Your task to perform on an android device: clear all cookies in the chrome app Image 0: 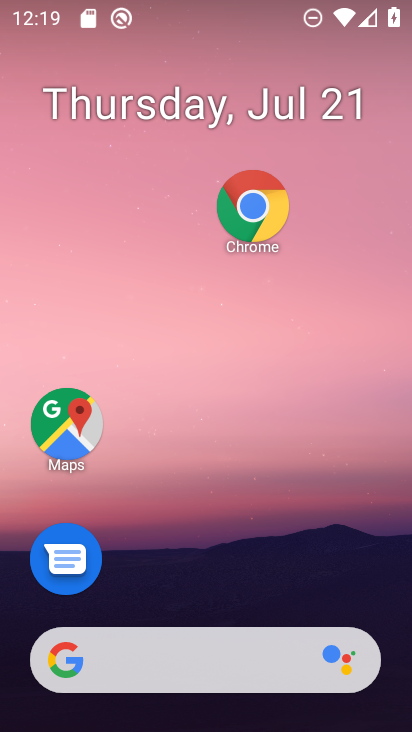
Step 0: drag from (243, 624) to (223, 134)
Your task to perform on an android device: clear all cookies in the chrome app Image 1: 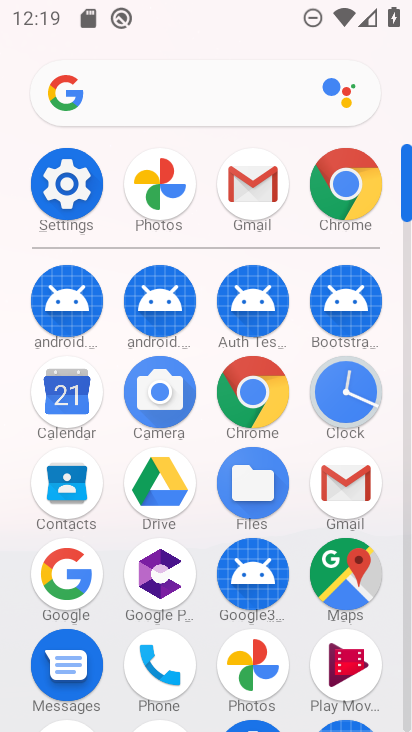
Step 1: click (272, 404)
Your task to perform on an android device: clear all cookies in the chrome app Image 2: 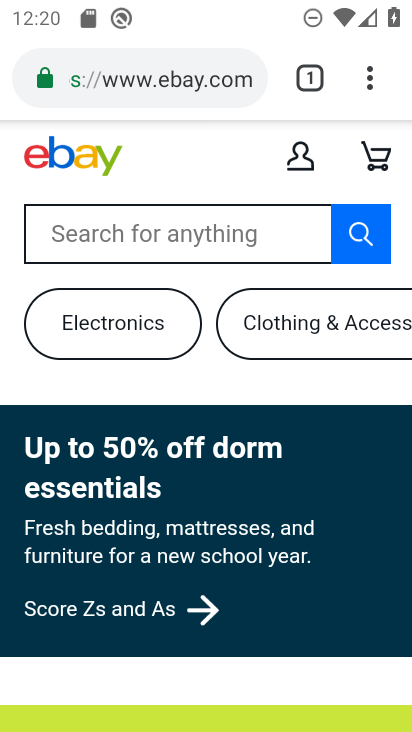
Step 2: click (373, 95)
Your task to perform on an android device: clear all cookies in the chrome app Image 3: 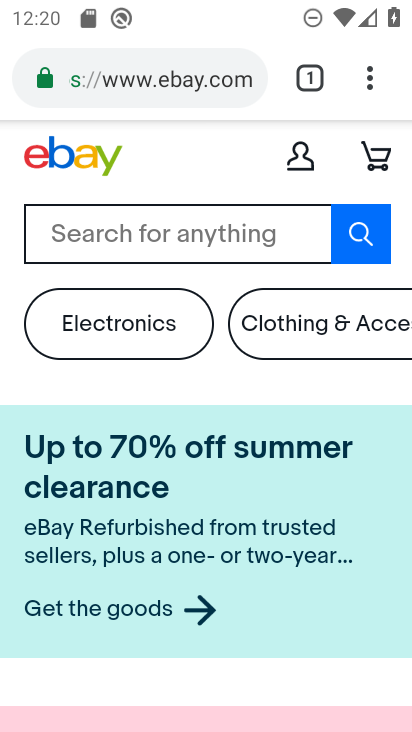
Step 3: click (371, 92)
Your task to perform on an android device: clear all cookies in the chrome app Image 4: 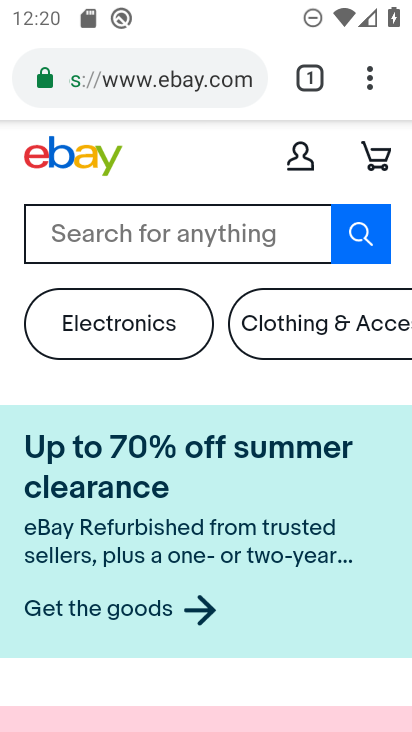
Step 4: click (371, 88)
Your task to perform on an android device: clear all cookies in the chrome app Image 5: 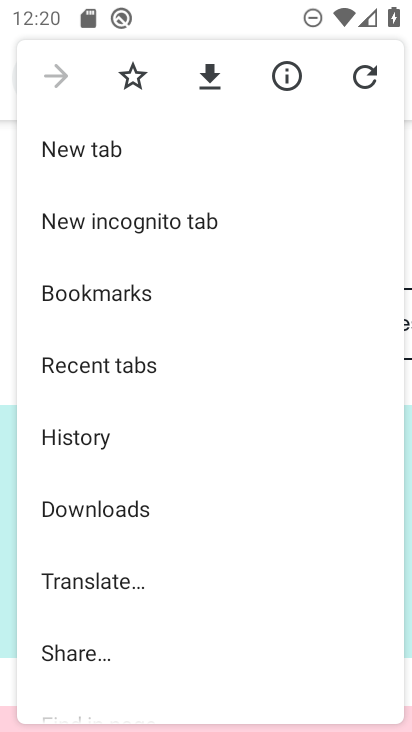
Step 5: click (107, 439)
Your task to perform on an android device: clear all cookies in the chrome app Image 6: 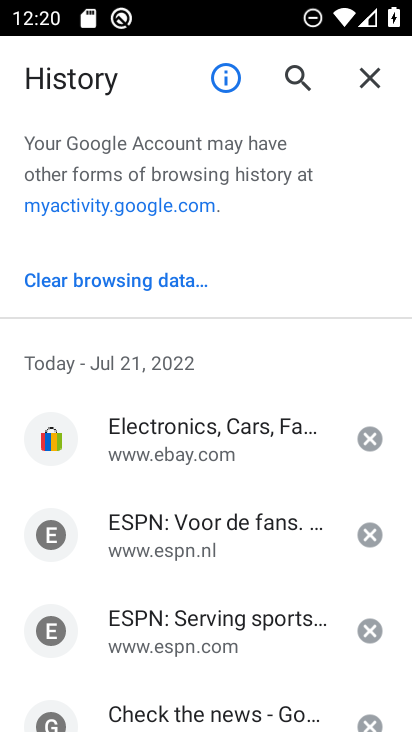
Step 6: click (104, 296)
Your task to perform on an android device: clear all cookies in the chrome app Image 7: 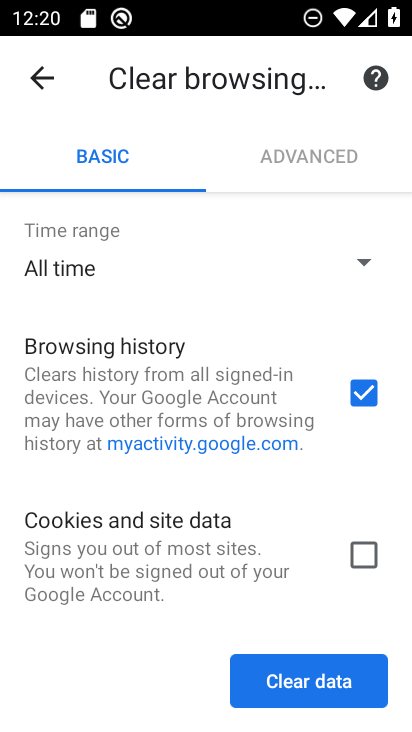
Step 7: click (356, 410)
Your task to perform on an android device: clear all cookies in the chrome app Image 8: 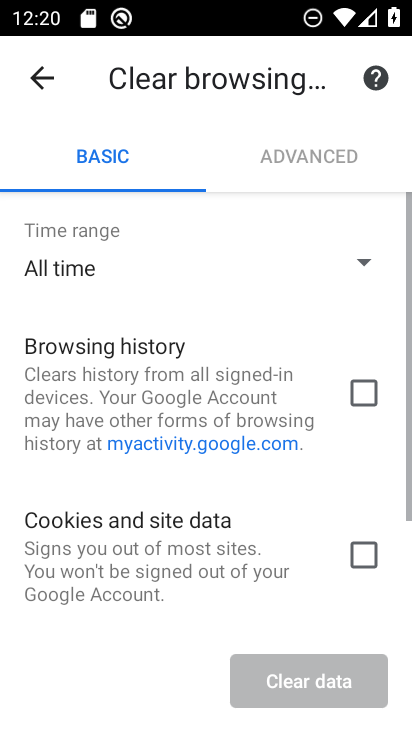
Step 8: drag from (251, 514) to (263, 282)
Your task to perform on an android device: clear all cookies in the chrome app Image 9: 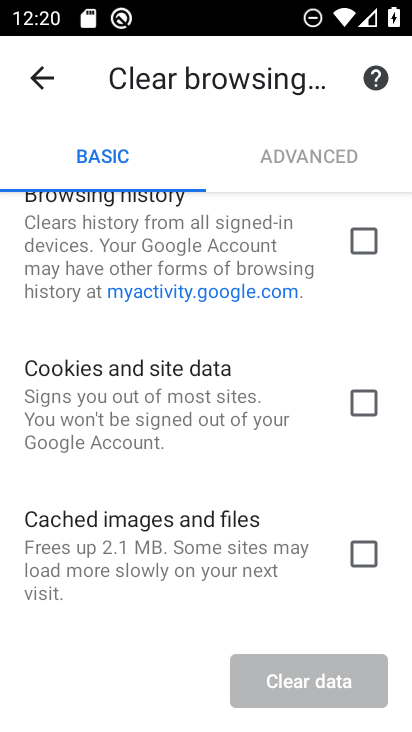
Step 9: click (350, 402)
Your task to perform on an android device: clear all cookies in the chrome app Image 10: 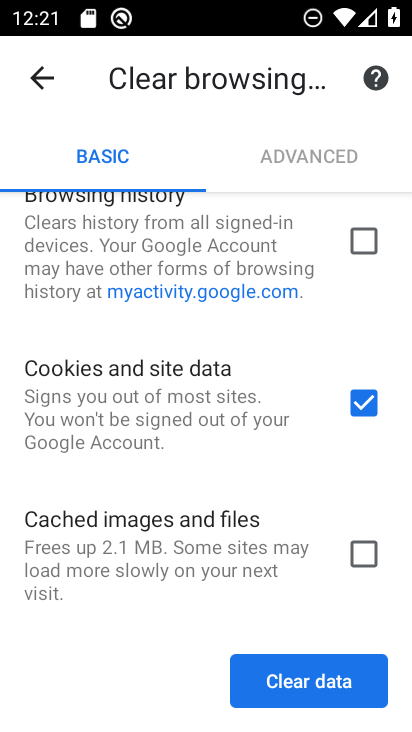
Step 10: click (309, 690)
Your task to perform on an android device: clear all cookies in the chrome app Image 11: 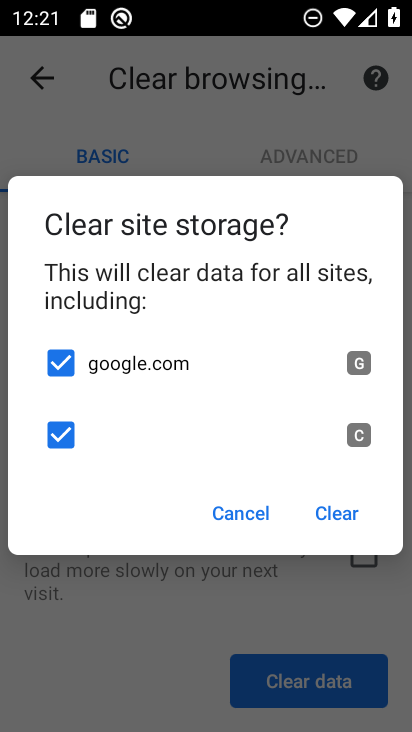
Step 11: click (345, 513)
Your task to perform on an android device: clear all cookies in the chrome app Image 12: 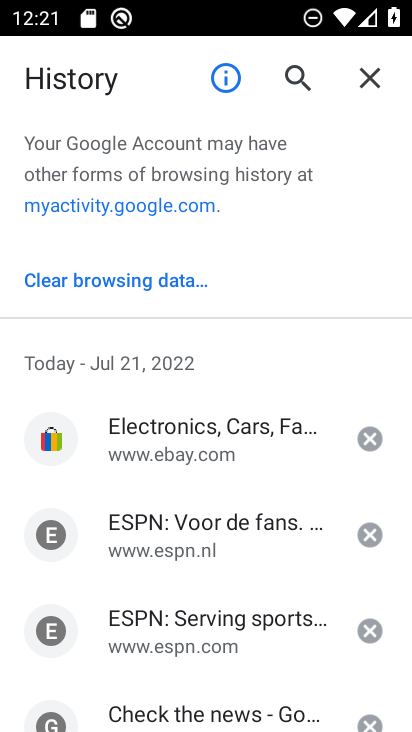
Step 12: task complete